Your task to perform on an android device: Open calendar and show me the first week of next month Image 0: 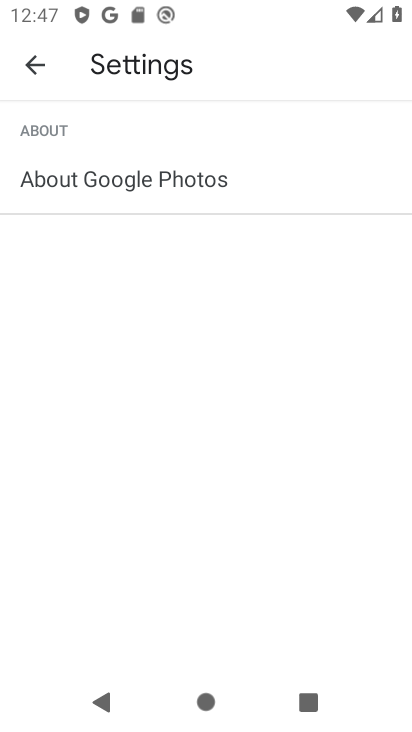
Step 0: press home button
Your task to perform on an android device: Open calendar and show me the first week of next month Image 1: 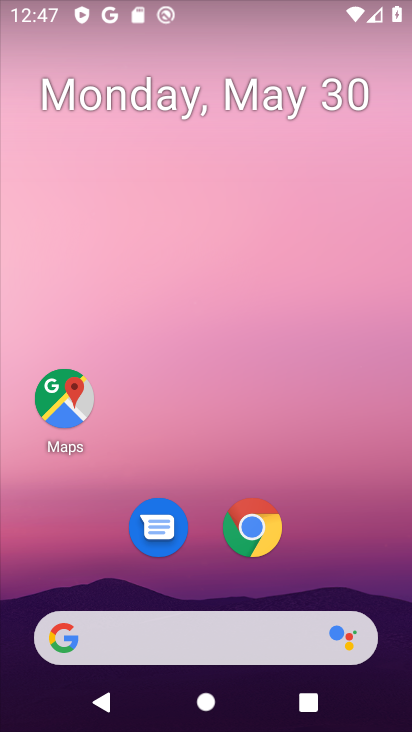
Step 1: drag from (354, 567) to (303, 190)
Your task to perform on an android device: Open calendar and show me the first week of next month Image 2: 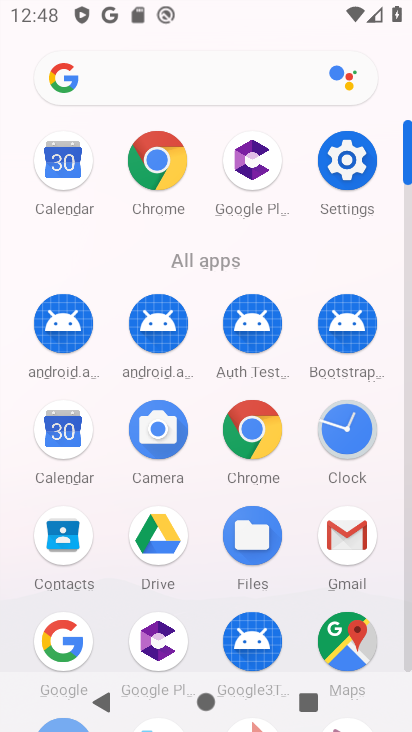
Step 2: click (71, 436)
Your task to perform on an android device: Open calendar and show me the first week of next month Image 3: 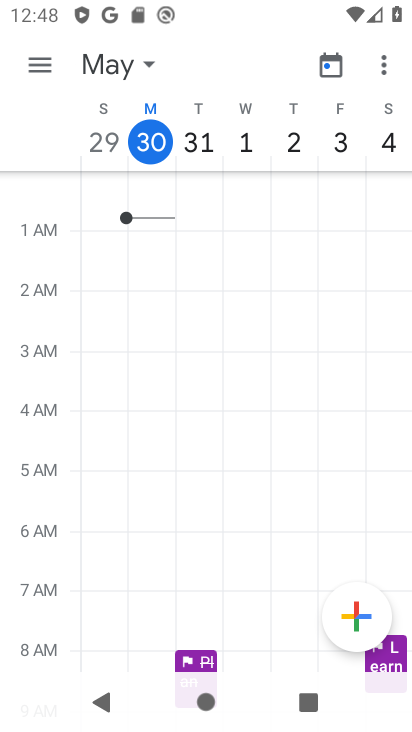
Step 3: click (100, 66)
Your task to perform on an android device: Open calendar and show me the first week of next month Image 4: 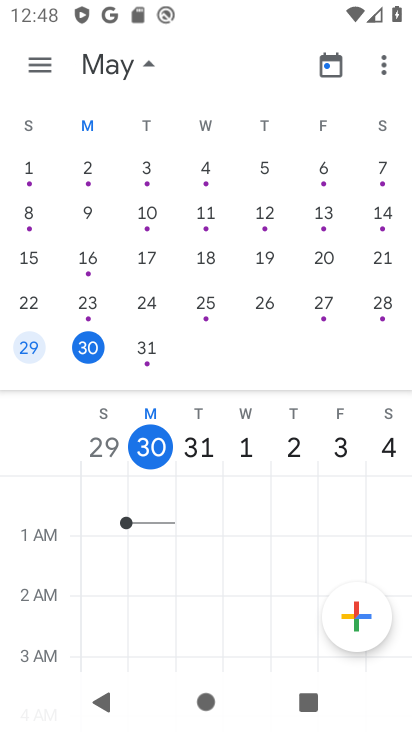
Step 4: drag from (371, 211) to (66, 229)
Your task to perform on an android device: Open calendar and show me the first week of next month Image 5: 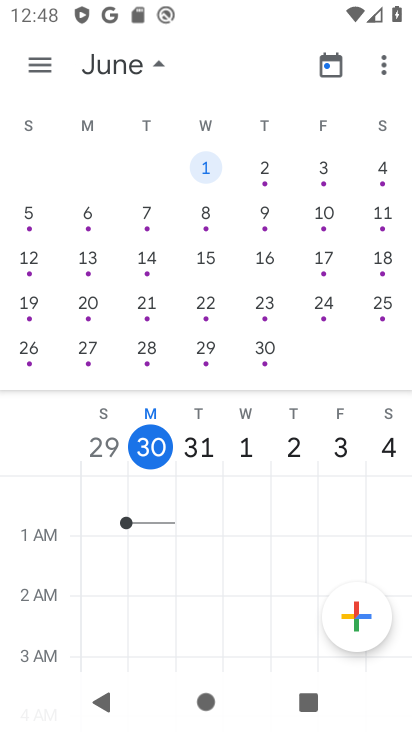
Step 5: click (195, 173)
Your task to perform on an android device: Open calendar and show me the first week of next month Image 6: 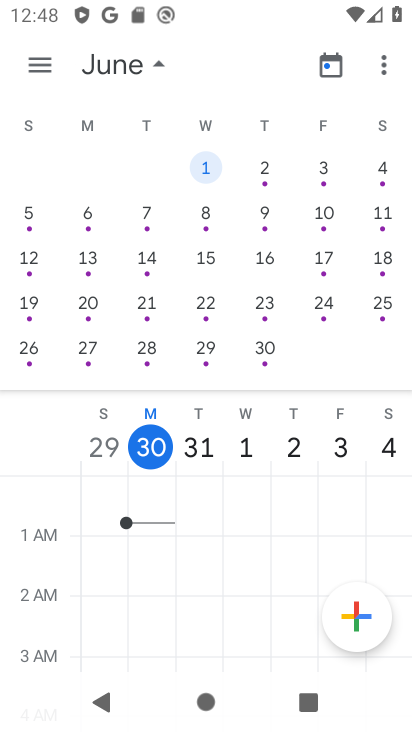
Step 6: click (257, 167)
Your task to perform on an android device: Open calendar and show me the first week of next month Image 7: 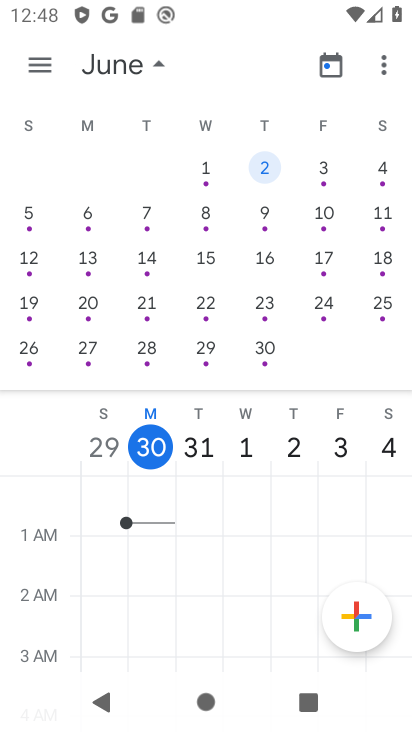
Step 7: task complete